Your task to perform on an android device: turn on bluetooth scan Image 0: 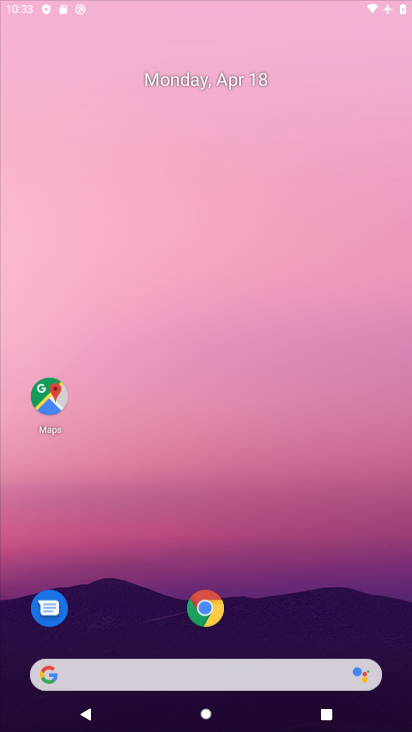
Step 0: click (205, 139)
Your task to perform on an android device: turn on bluetooth scan Image 1: 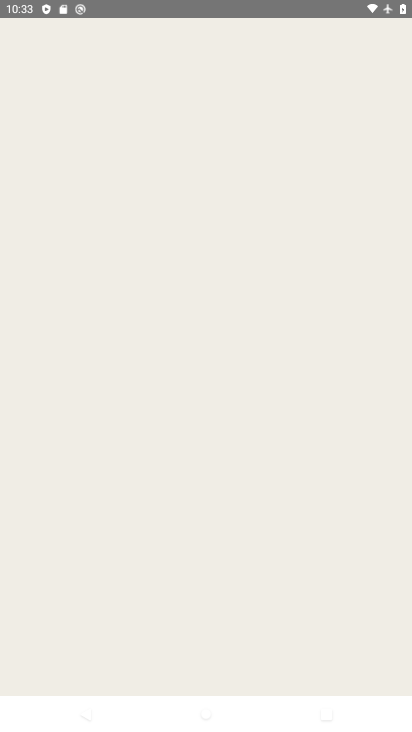
Step 1: press home button
Your task to perform on an android device: turn on bluetooth scan Image 2: 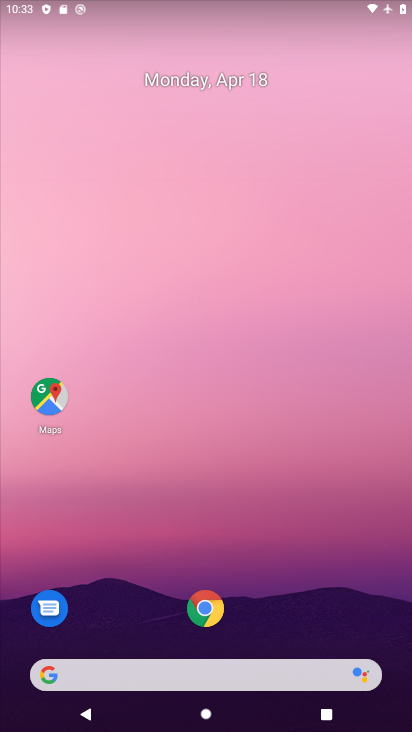
Step 2: drag from (266, 586) to (257, 201)
Your task to perform on an android device: turn on bluetooth scan Image 3: 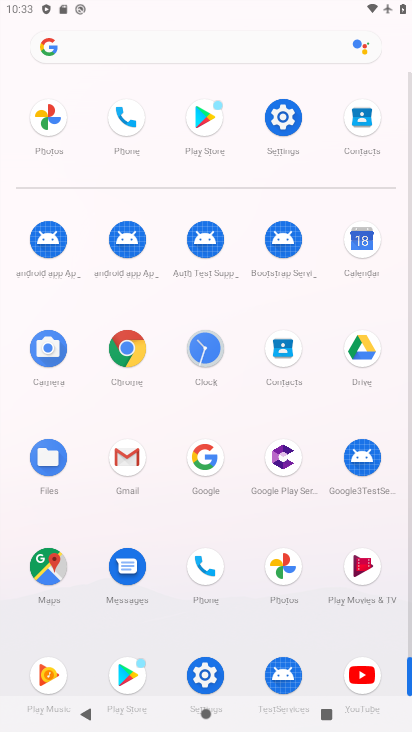
Step 3: drag from (242, 635) to (234, 438)
Your task to perform on an android device: turn on bluetooth scan Image 4: 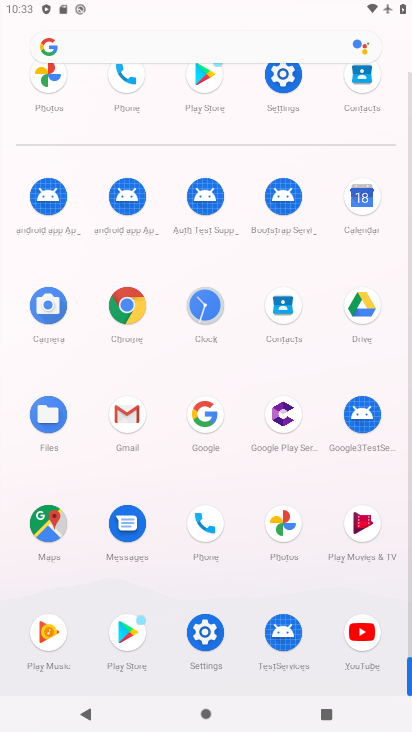
Step 4: click (212, 639)
Your task to perform on an android device: turn on bluetooth scan Image 5: 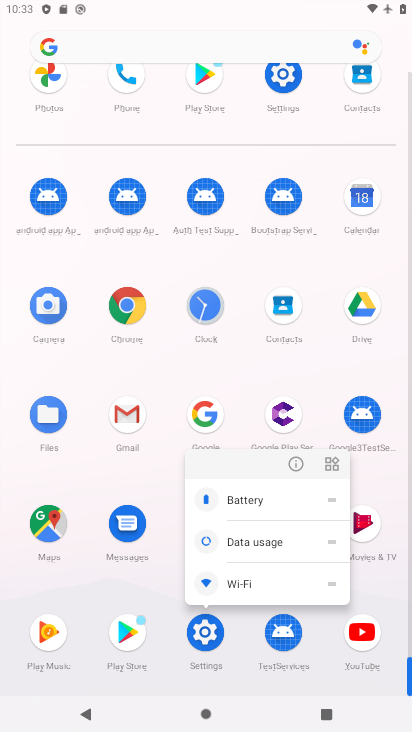
Step 5: click (211, 639)
Your task to perform on an android device: turn on bluetooth scan Image 6: 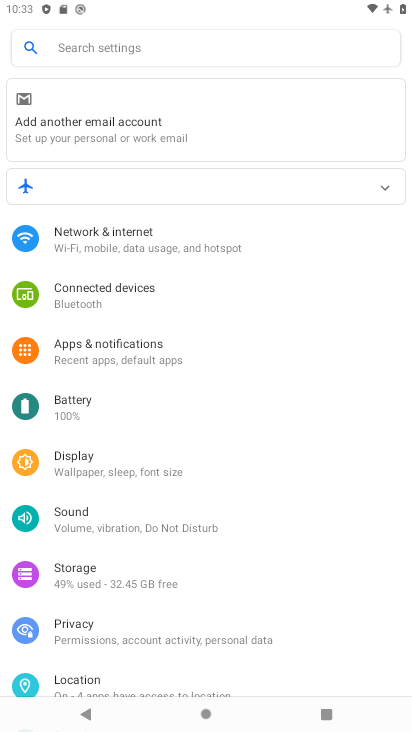
Step 6: click (87, 675)
Your task to perform on an android device: turn on bluetooth scan Image 7: 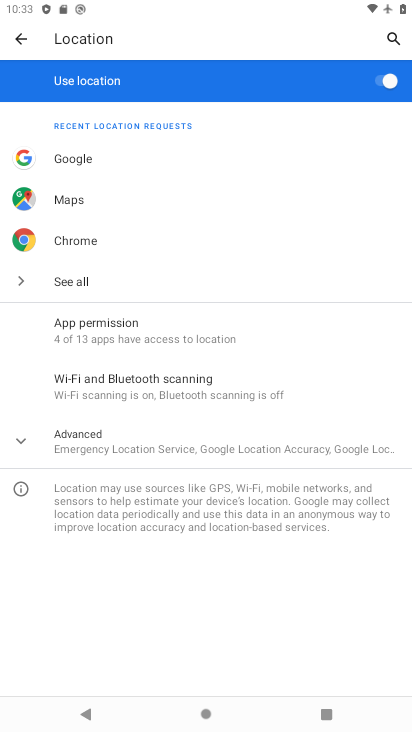
Step 7: click (95, 396)
Your task to perform on an android device: turn on bluetooth scan Image 8: 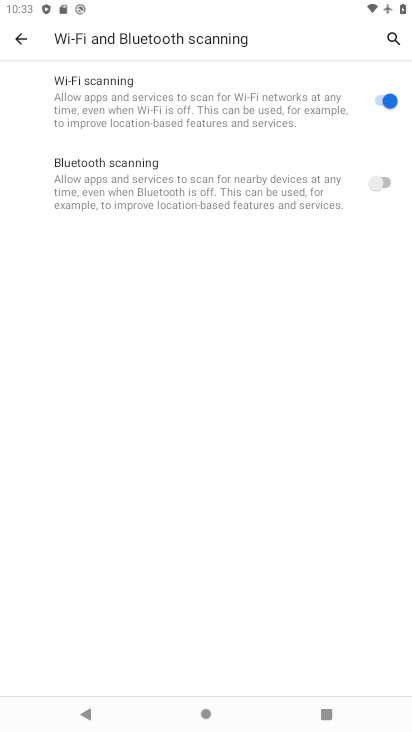
Step 8: click (385, 183)
Your task to perform on an android device: turn on bluetooth scan Image 9: 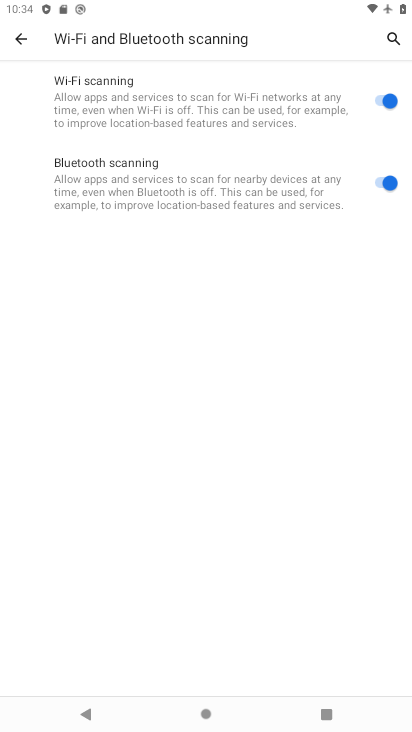
Step 9: task complete